Your task to perform on an android device: Turn on the flashlight Image 0: 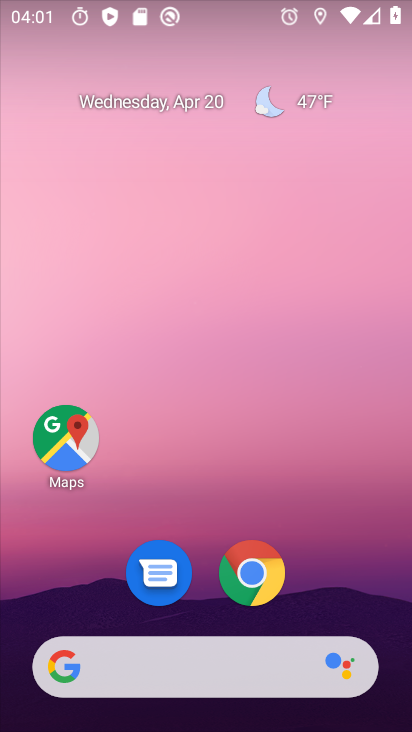
Step 0: drag from (199, 701) to (209, 93)
Your task to perform on an android device: Turn on the flashlight Image 1: 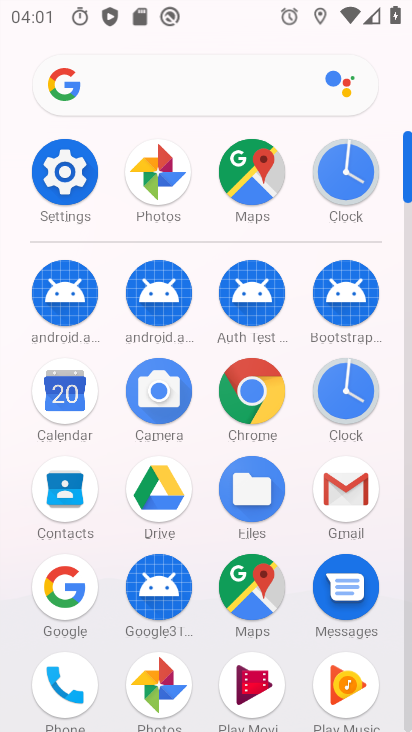
Step 1: click (60, 177)
Your task to perform on an android device: Turn on the flashlight Image 2: 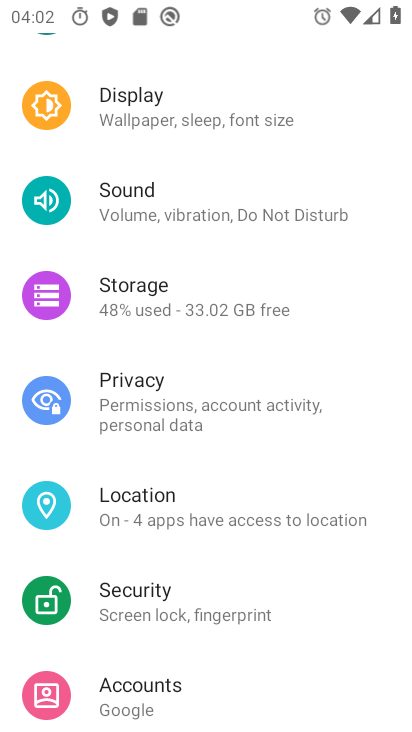
Step 2: task complete